Your task to perform on an android device: Open Google Chrome Image 0: 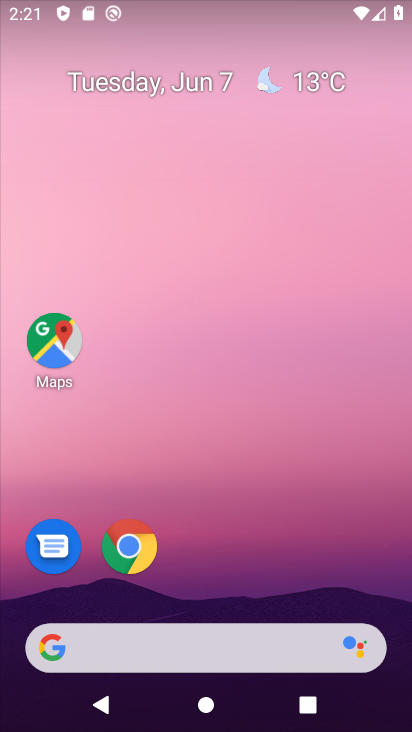
Step 0: click (120, 554)
Your task to perform on an android device: Open Google Chrome Image 1: 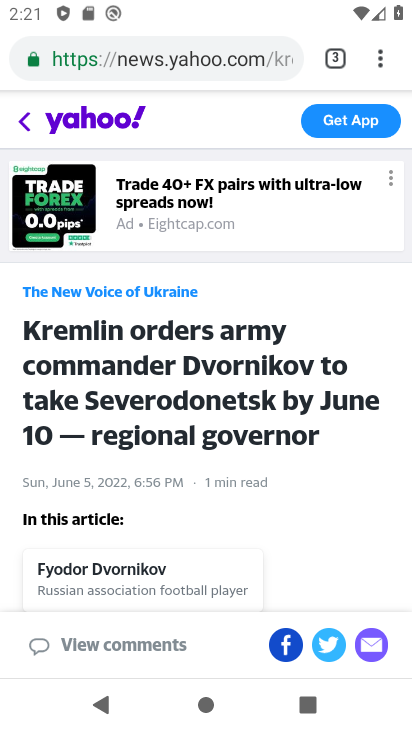
Step 1: task complete